Your task to perform on an android device: open a new tab in the chrome app Image 0: 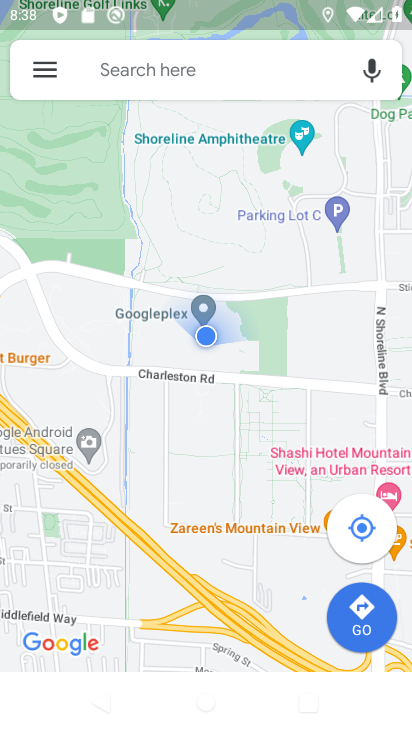
Step 0: press home button
Your task to perform on an android device: open a new tab in the chrome app Image 1: 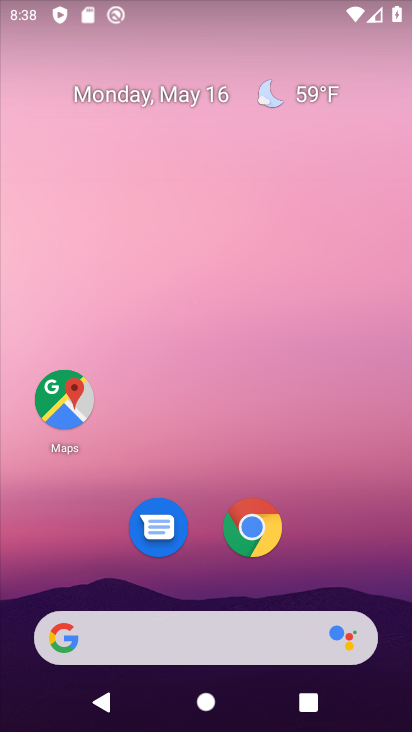
Step 1: click (260, 522)
Your task to perform on an android device: open a new tab in the chrome app Image 2: 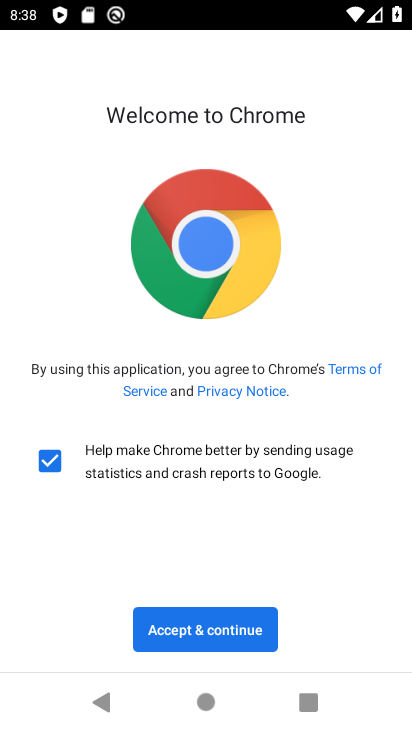
Step 2: click (205, 630)
Your task to perform on an android device: open a new tab in the chrome app Image 3: 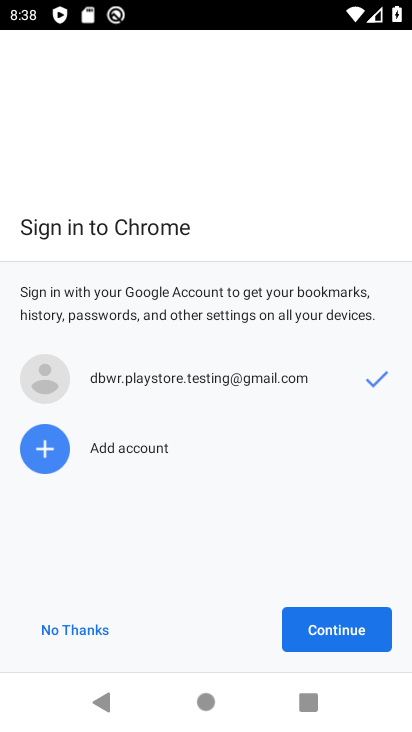
Step 3: click (301, 624)
Your task to perform on an android device: open a new tab in the chrome app Image 4: 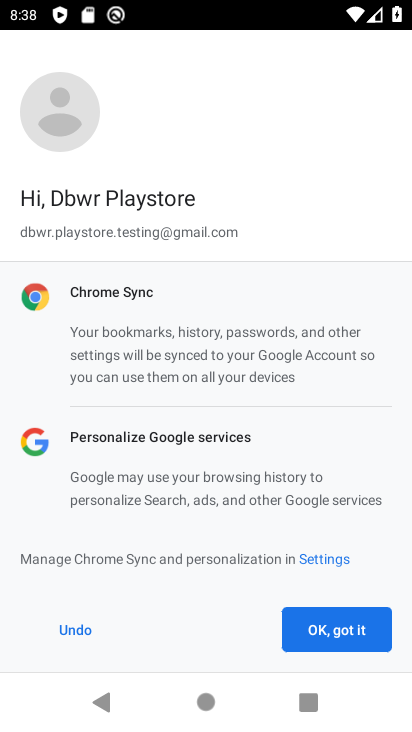
Step 4: click (294, 629)
Your task to perform on an android device: open a new tab in the chrome app Image 5: 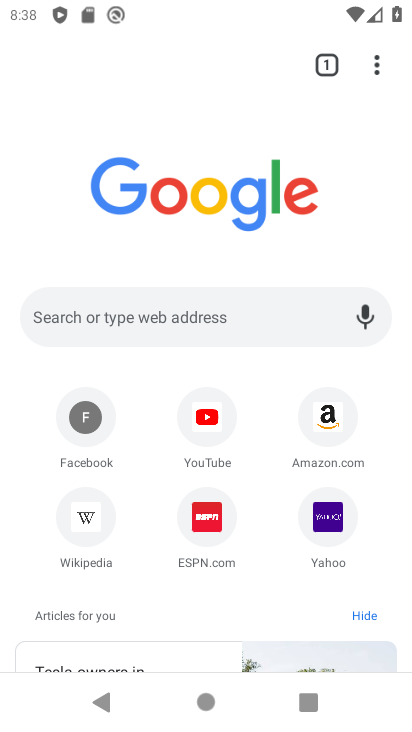
Step 5: click (294, 629)
Your task to perform on an android device: open a new tab in the chrome app Image 6: 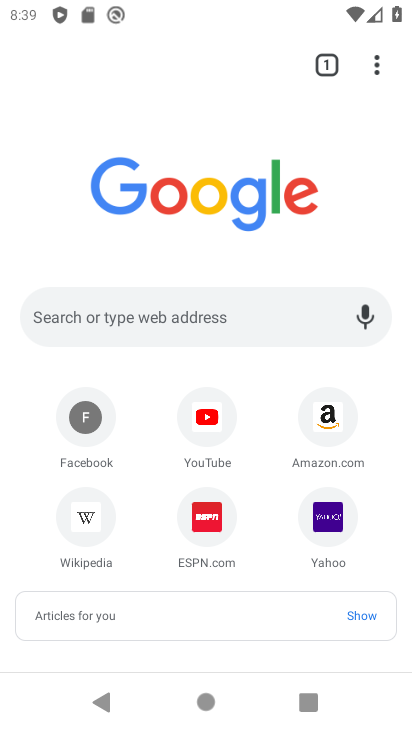
Step 6: click (379, 60)
Your task to perform on an android device: open a new tab in the chrome app Image 7: 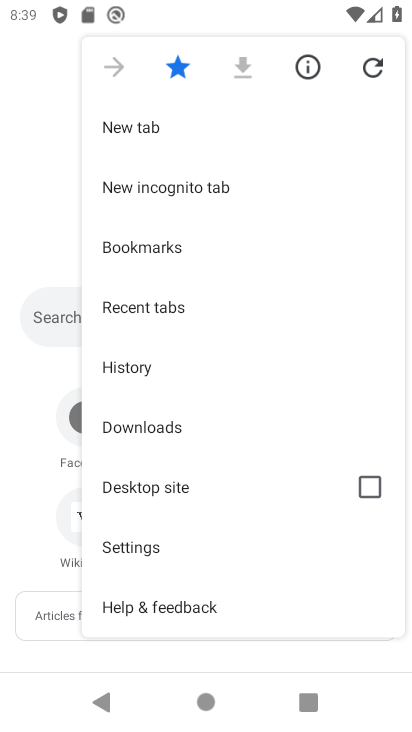
Step 7: click (143, 126)
Your task to perform on an android device: open a new tab in the chrome app Image 8: 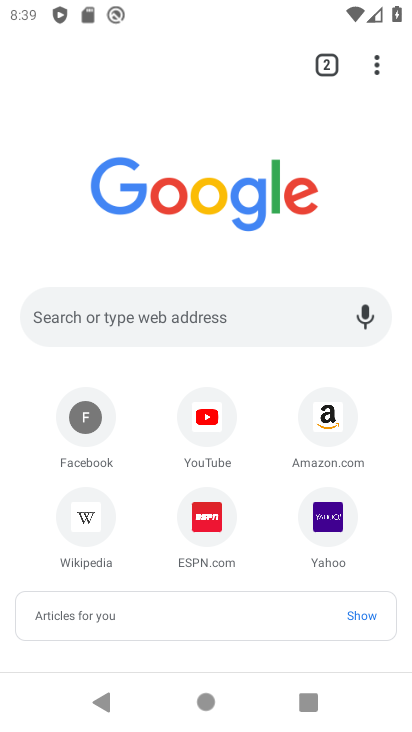
Step 8: task complete